Your task to perform on an android device: stop showing notifications on the lock screen Image 0: 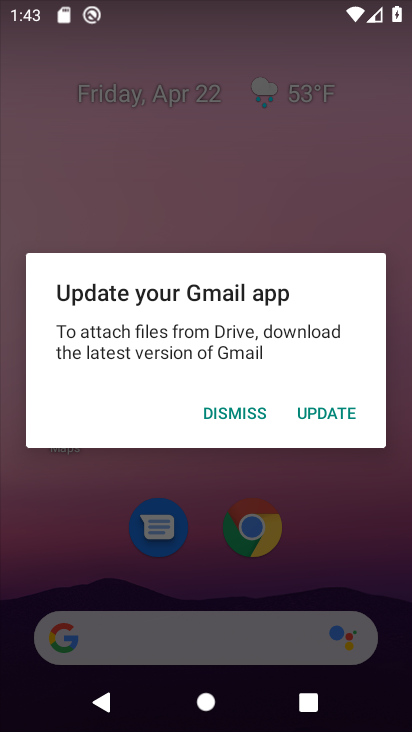
Step 0: press home button
Your task to perform on an android device: stop showing notifications on the lock screen Image 1: 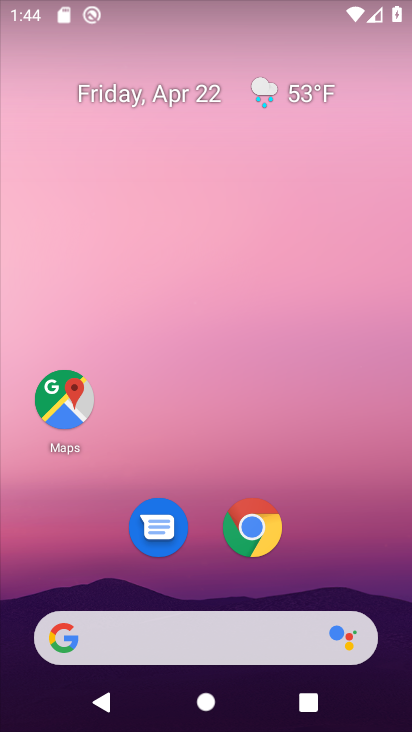
Step 1: drag from (349, 585) to (308, 21)
Your task to perform on an android device: stop showing notifications on the lock screen Image 2: 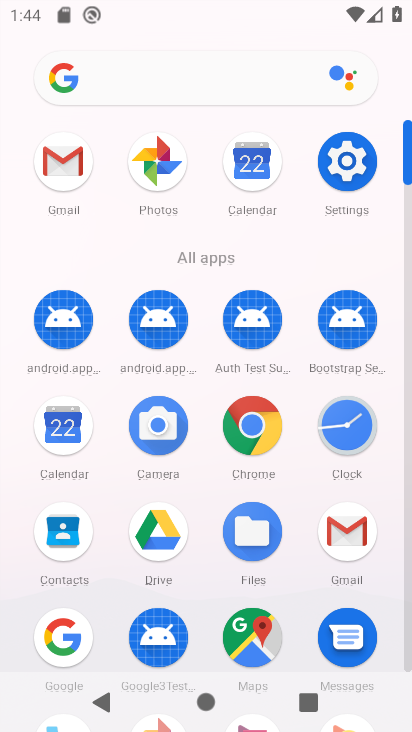
Step 2: drag from (278, 276) to (364, 85)
Your task to perform on an android device: stop showing notifications on the lock screen Image 3: 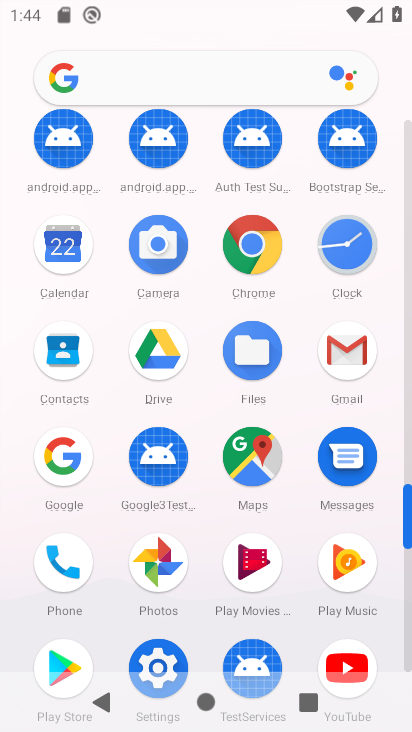
Step 3: drag from (290, 582) to (292, 394)
Your task to perform on an android device: stop showing notifications on the lock screen Image 4: 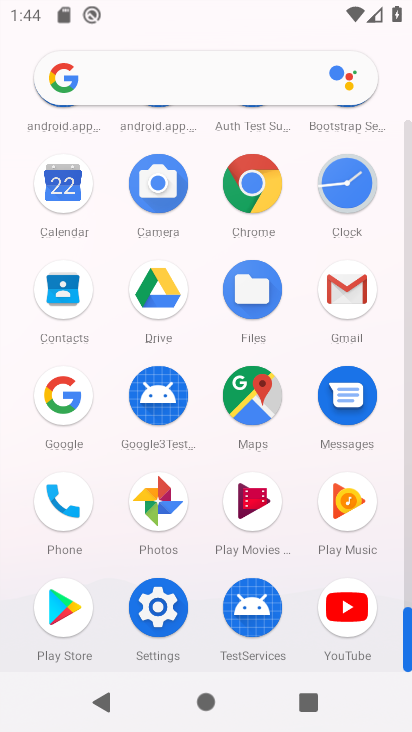
Step 4: click (161, 602)
Your task to perform on an android device: stop showing notifications on the lock screen Image 5: 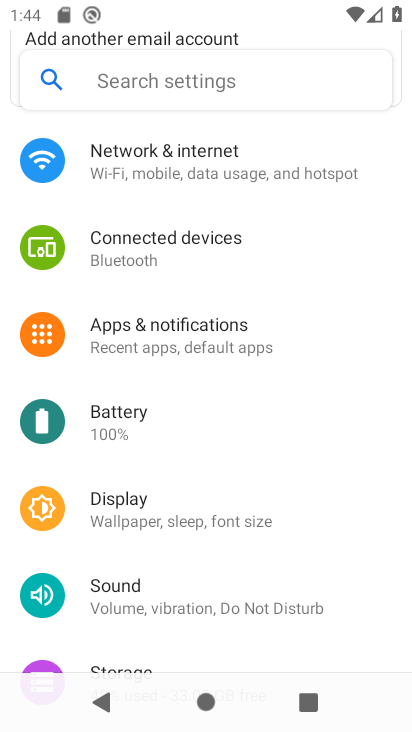
Step 5: click (171, 347)
Your task to perform on an android device: stop showing notifications on the lock screen Image 6: 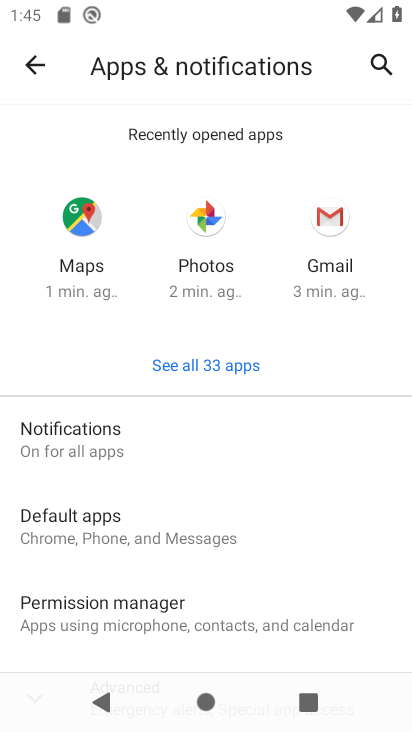
Step 6: click (108, 429)
Your task to perform on an android device: stop showing notifications on the lock screen Image 7: 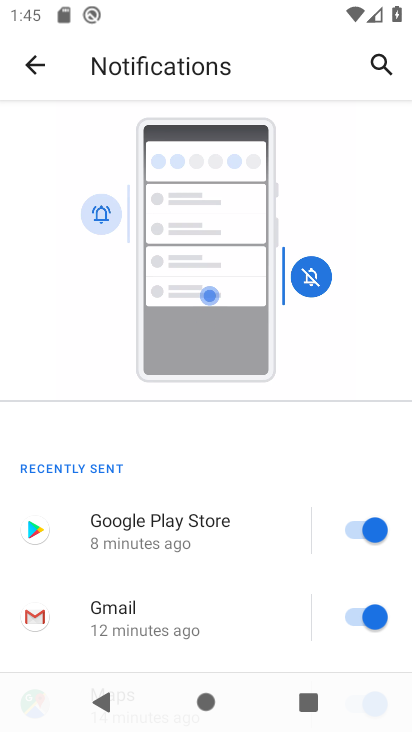
Step 7: drag from (228, 518) to (183, 2)
Your task to perform on an android device: stop showing notifications on the lock screen Image 8: 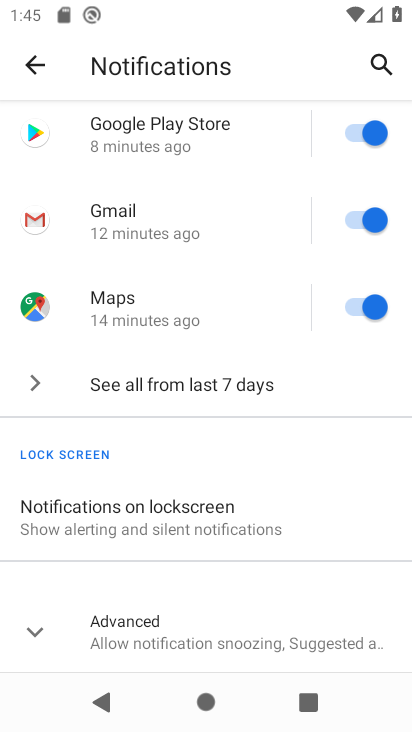
Step 8: click (147, 514)
Your task to perform on an android device: stop showing notifications on the lock screen Image 9: 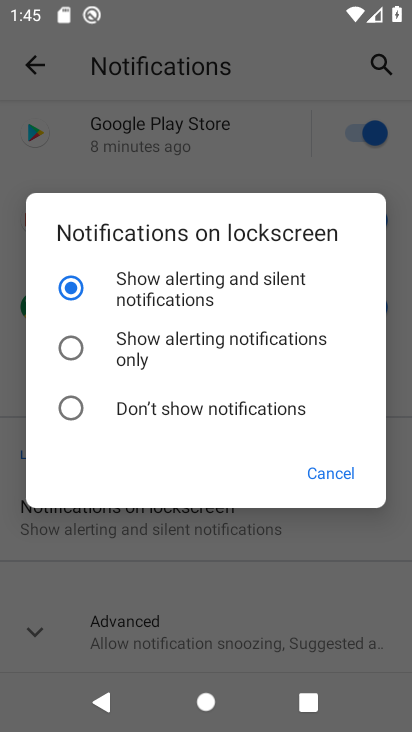
Step 9: click (147, 421)
Your task to perform on an android device: stop showing notifications on the lock screen Image 10: 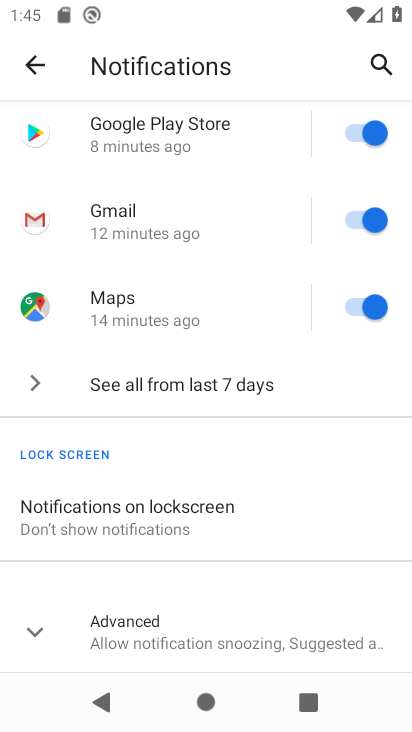
Step 10: task complete